Your task to perform on an android device: Open the calendar and show me this week's events? Image 0: 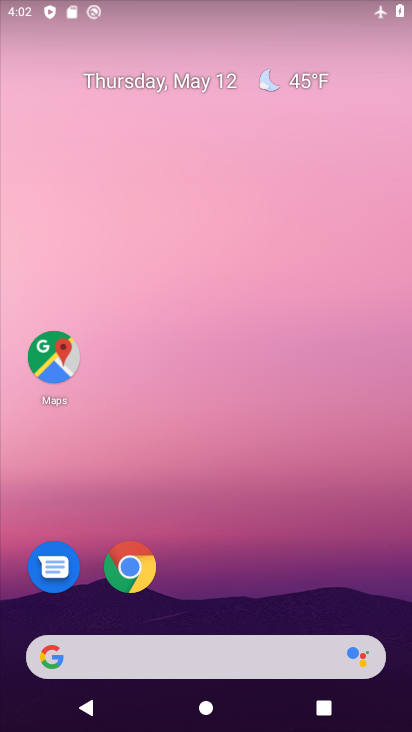
Step 0: drag from (218, 600) to (227, 227)
Your task to perform on an android device: Open the calendar and show me this week's events? Image 1: 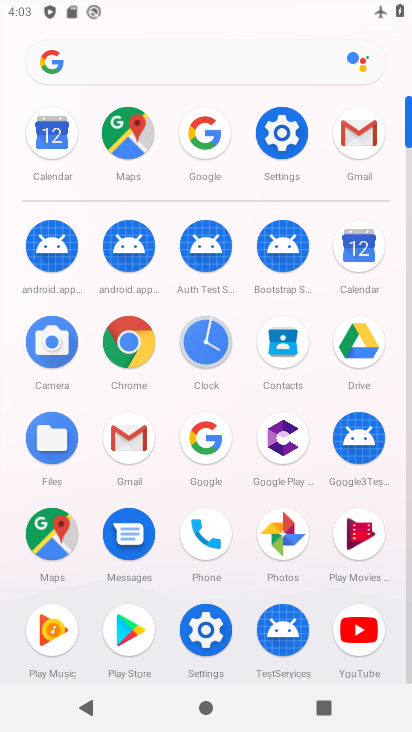
Step 1: click (354, 246)
Your task to perform on an android device: Open the calendar and show me this week's events? Image 2: 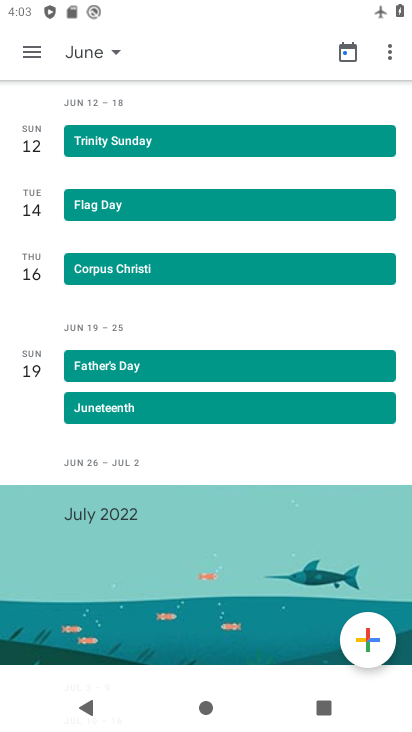
Step 2: click (102, 54)
Your task to perform on an android device: Open the calendar and show me this week's events? Image 3: 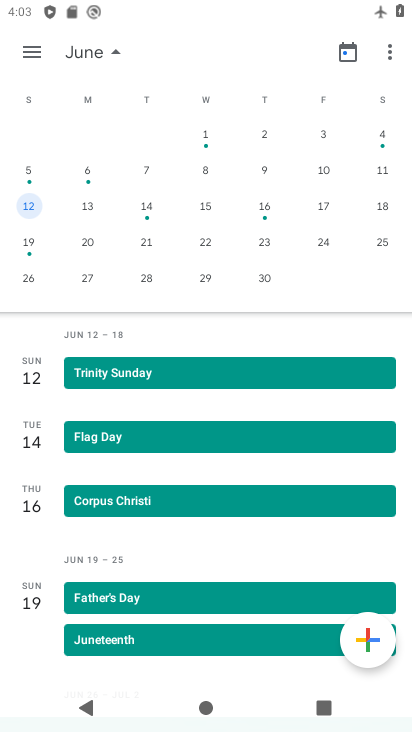
Step 3: drag from (54, 191) to (382, 166)
Your task to perform on an android device: Open the calendar and show me this week's events? Image 4: 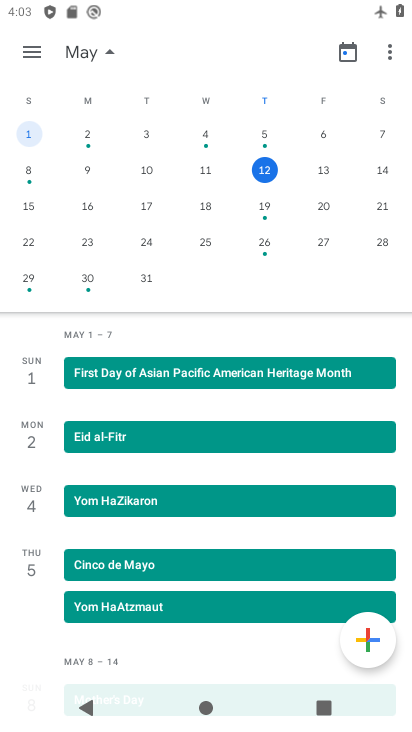
Step 4: click (368, 166)
Your task to perform on an android device: Open the calendar and show me this week's events? Image 5: 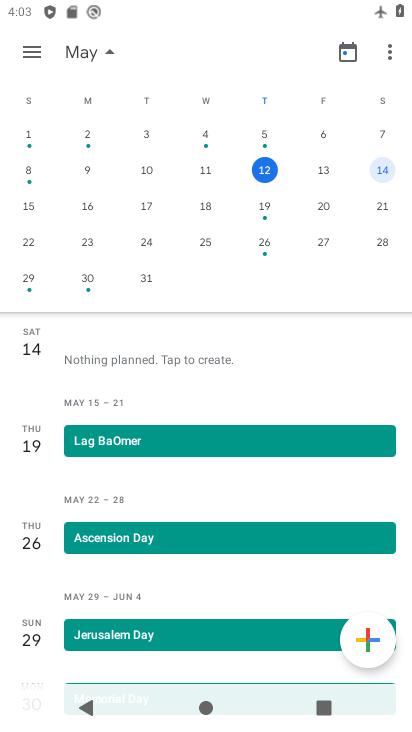
Step 5: click (323, 173)
Your task to perform on an android device: Open the calendar and show me this week's events? Image 6: 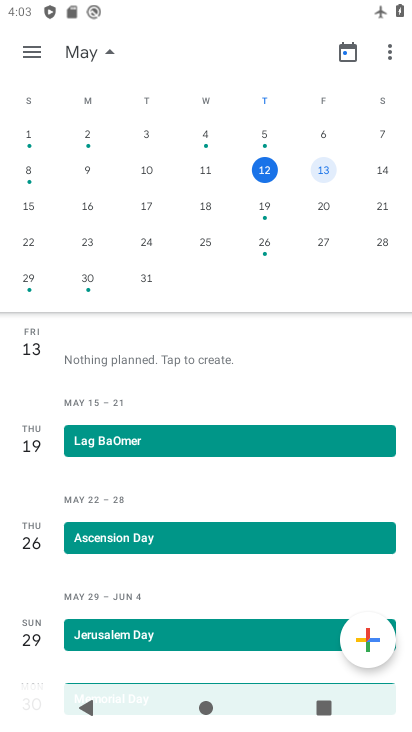
Step 6: task complete